Your task to perform on an android device: turn off translation in the chrome app Image 0: 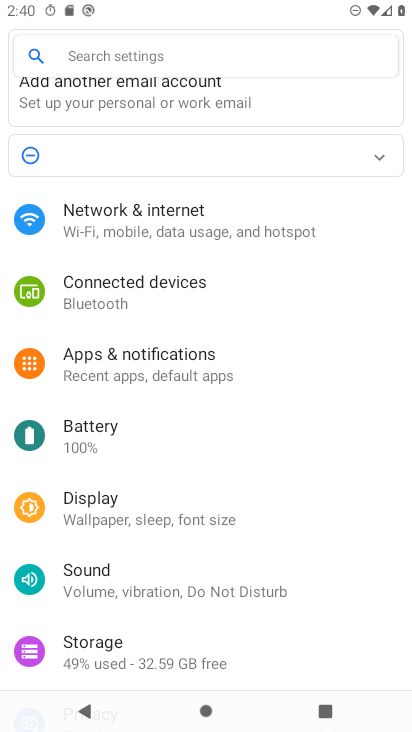
Step 0: press home button
Your task to perform on an android device: turn off translation in the chrome app Image 1: 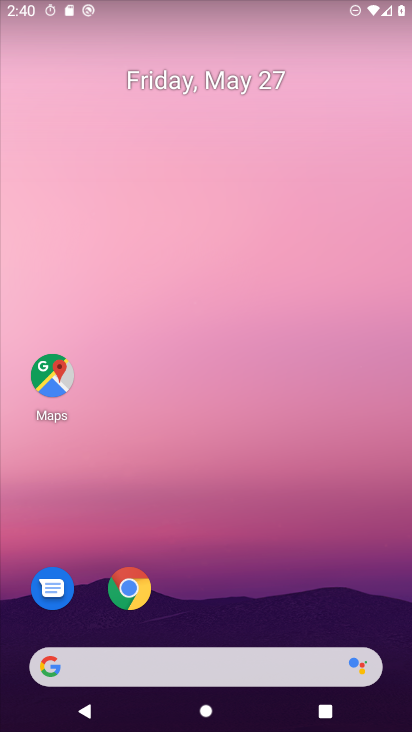
Step 1: drag from (247, 589) to (234, 155)
Your task to perform on an android device: turn off translation in the chrome app Image 2: 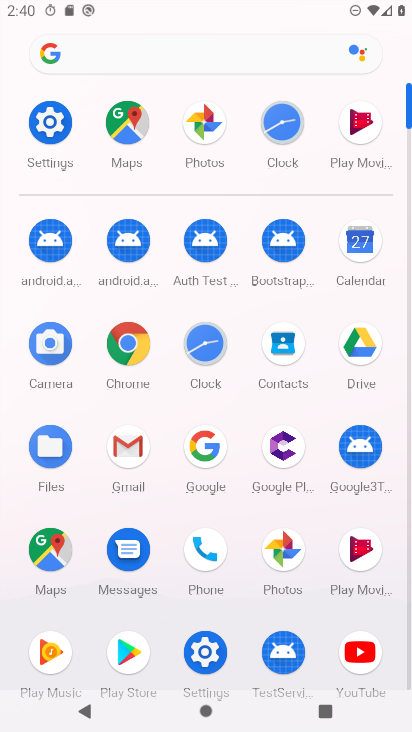
Step 2: click (126, 338)
Your task to perform on an android device: turn off translation in the chrome app Image 3: 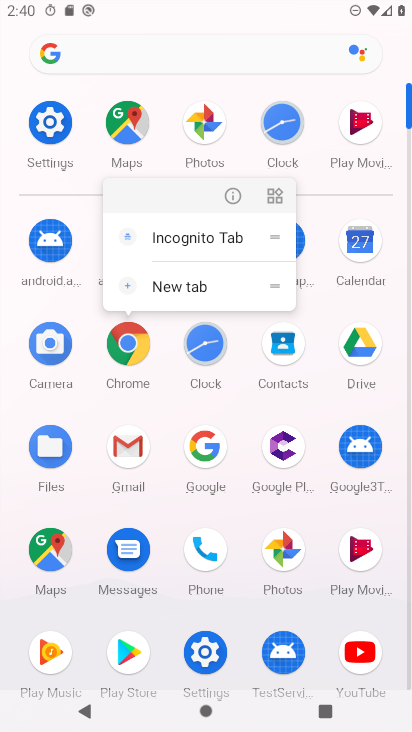
Step 3: click (130, 356)
Your task to perform on an android device: turn off translation in the chrome app Image 4: 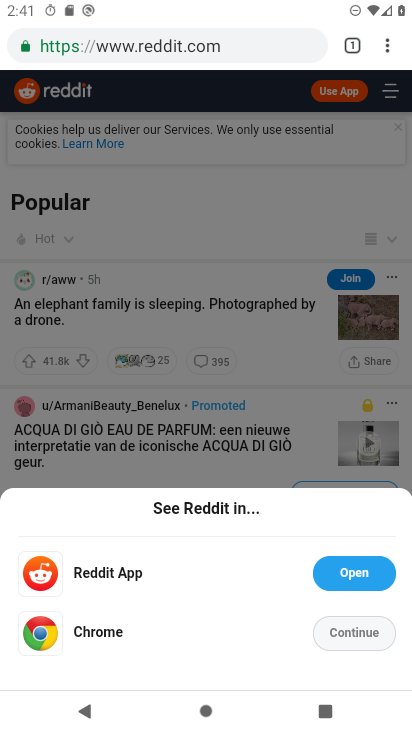
Step 4: click (390, 48)
Your task to perform on an android device: turn off translation in the chrome app Image 5: 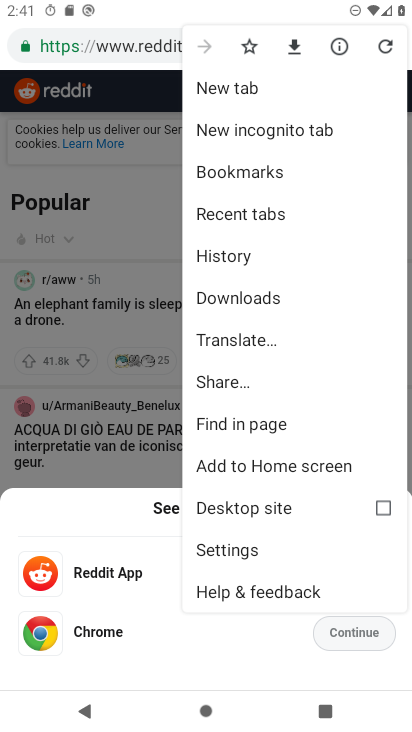
Step 5: click (251, 557)
Your task to perform on an android device: turn off translation in the chrome app Image 6: 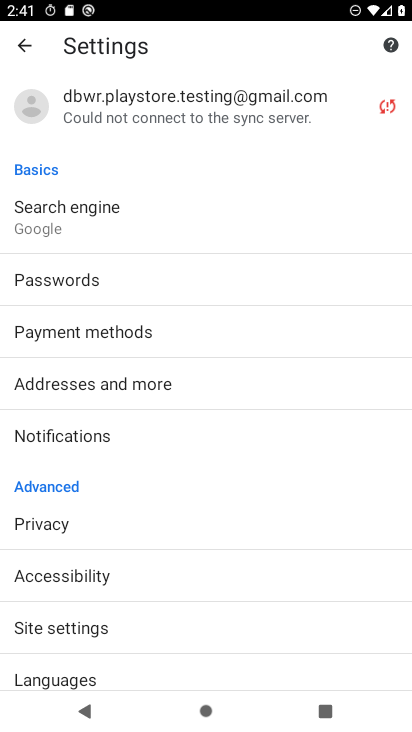
Step 6: click (90, 672)
Your task to perform on an android device: turn off translation in the chrome app Image 7: 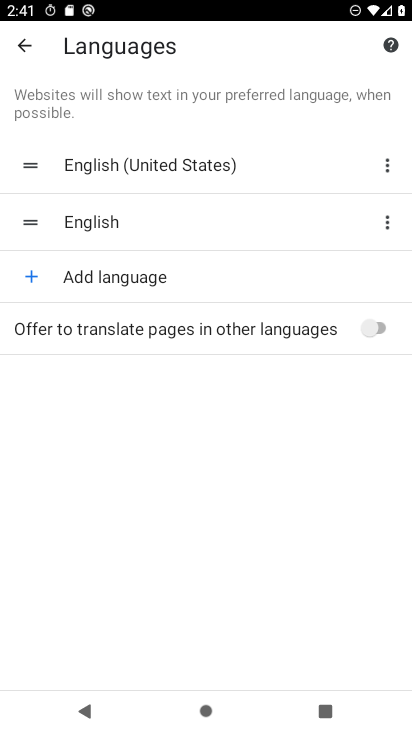
Step 7: task complete